Your task to perform on an android device: Toggle the flashlight Image 0: 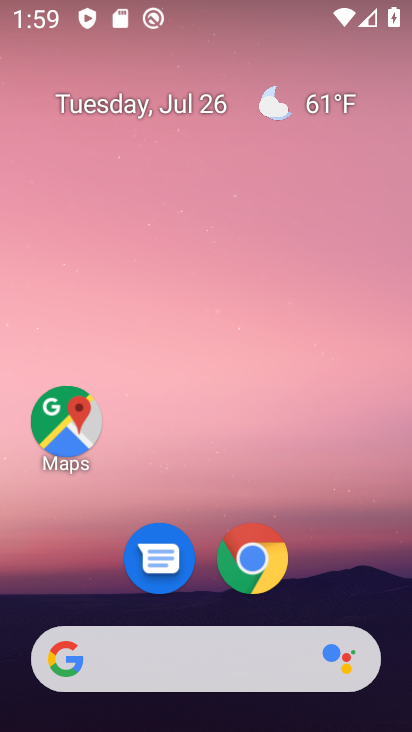
Step 0: drag from (186, 550) to (313, 24)
Your task to perform on an android device: Toggle the flashlight Image 1: 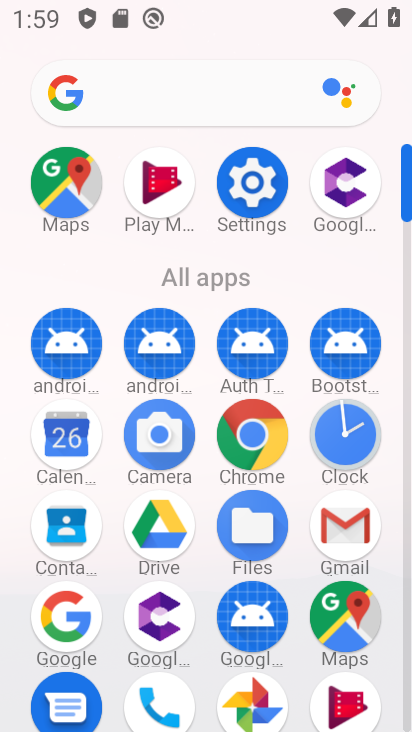
Step 1: click (243, 175)
Your task to perform on an android device: Toggle the flashlight Image 2: 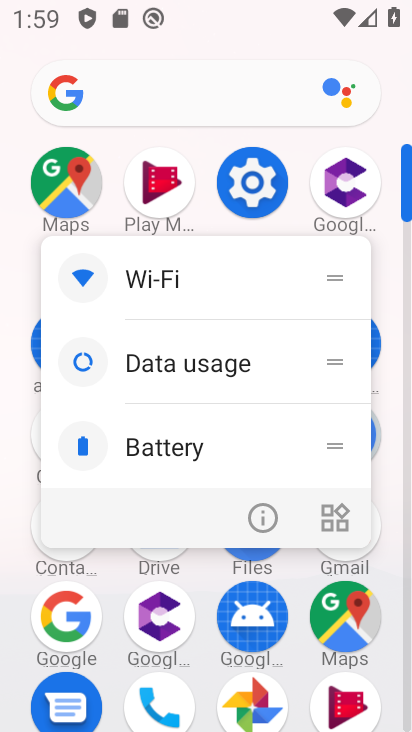
Step 2: click (255, 178)
Your task to perform on an android device: Toggle the flashlight Image 3: 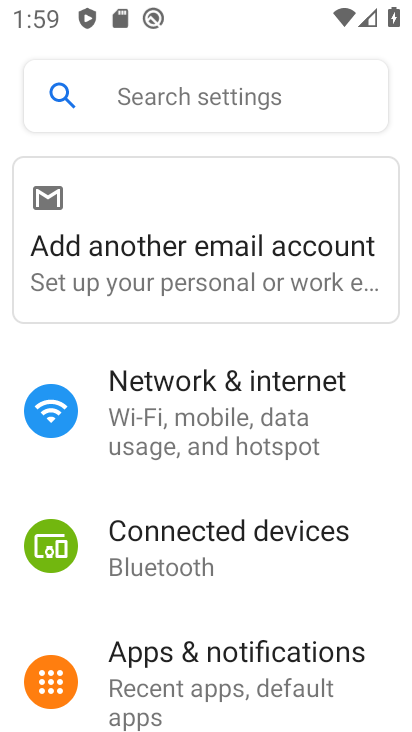
Step 3: click (214, 106)
Your task to perform on an android device: Toggle the flashlight Image 4: 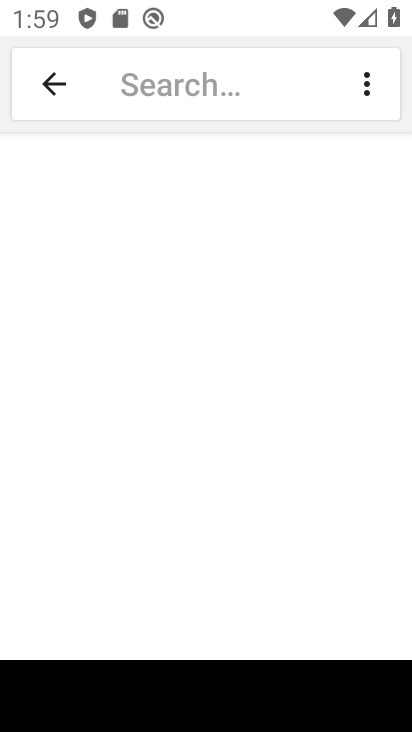
Step 4: type "flashlight"
Your task to perform on an android device: Toggle the flashlight Image 5: 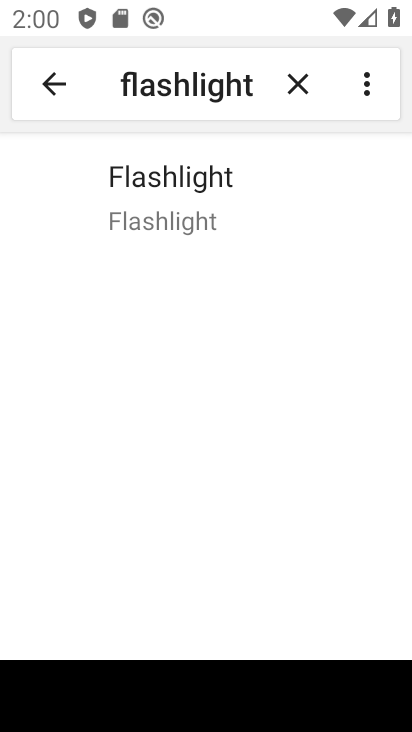
Step 5: click (164, 208)
Your task to perform on an android device: Toggle the flashlight Image 6: 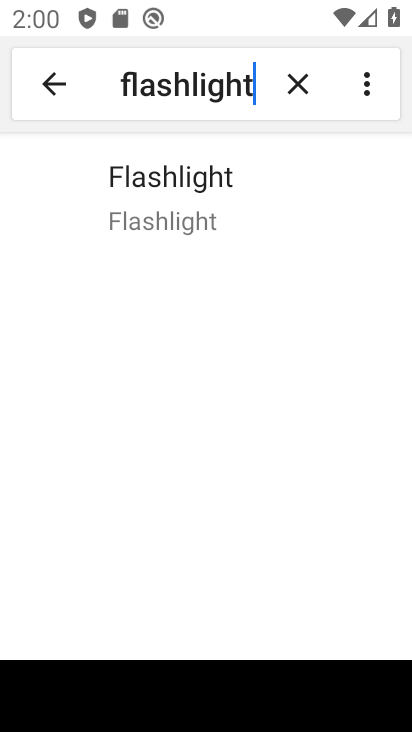
Step 6: click (152, 214)
Your task to perform on an android device: Toggle the flashlight Image 7: 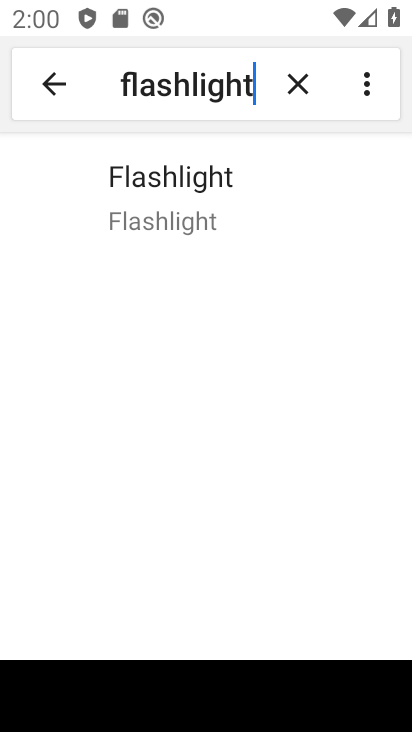
Step 7: task complete